Your task to perform on an android device: Open calendar and show me the third week of next month Image 0: 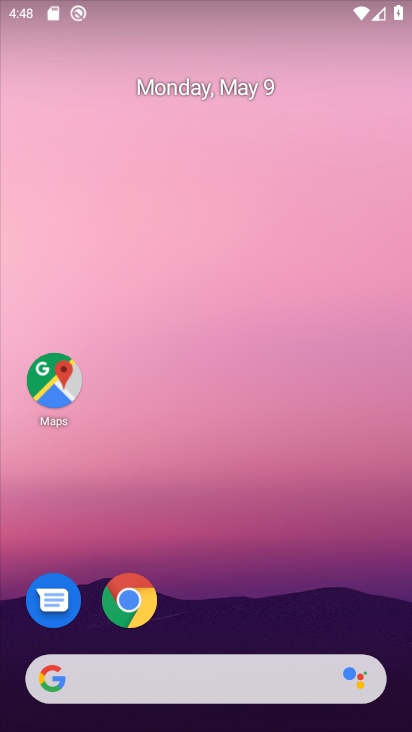
Step 0: drag from (242, 673) to (217, 80)
Your task to perform on an android device: Open calendar and show me the third week of next month Image 1: 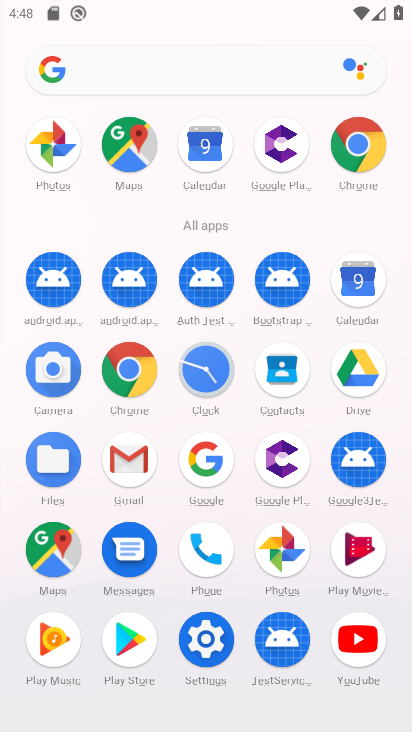
Step 1: click (366, 268)
Your task to perform on an android device: Open calendar and show me the third week of next month Image 2: 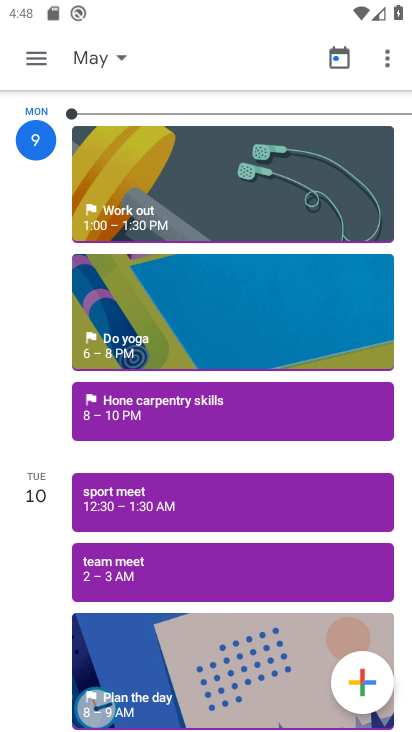
Step 2: click (130, 56)
Your task to perform on an android device: Open calendar and show me the third week of next month Image 3: 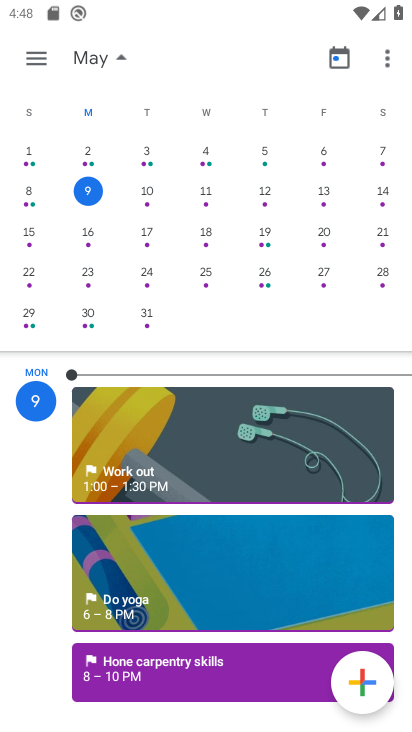
Step 3: drag from (365, 265) to (28, 233)
Your task to perform on an android device: Open calendar and show me the third week of next month Image 4: 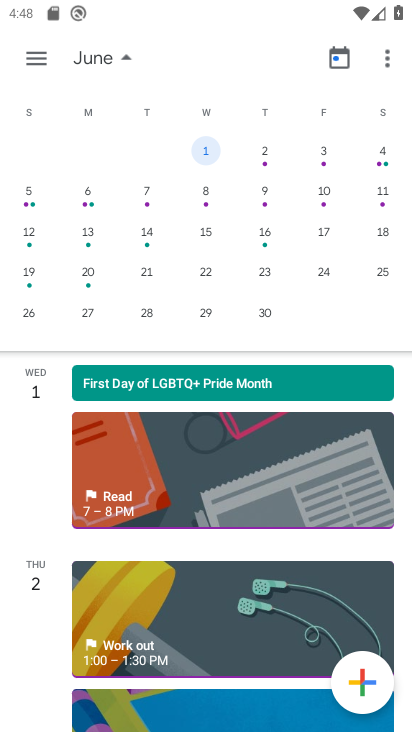
Step 4: click (259, 229)
Your task to perform on an android device: Open calendar and show me the third week of next month Image 5: 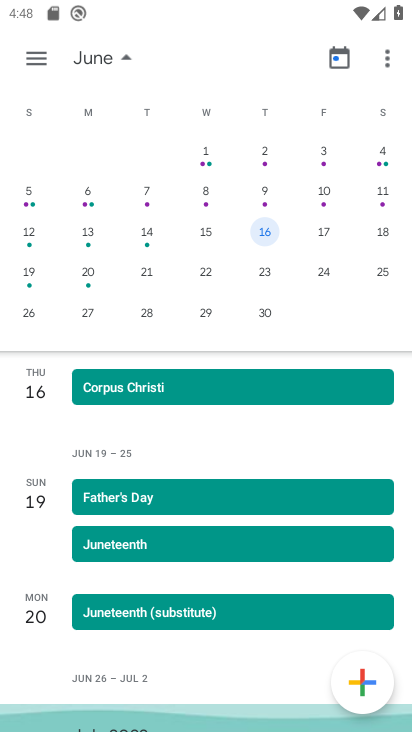
Step 5: click (37, 60)
Your task to perform on an android device: Open calendar and show me the third week of next month Image 6: 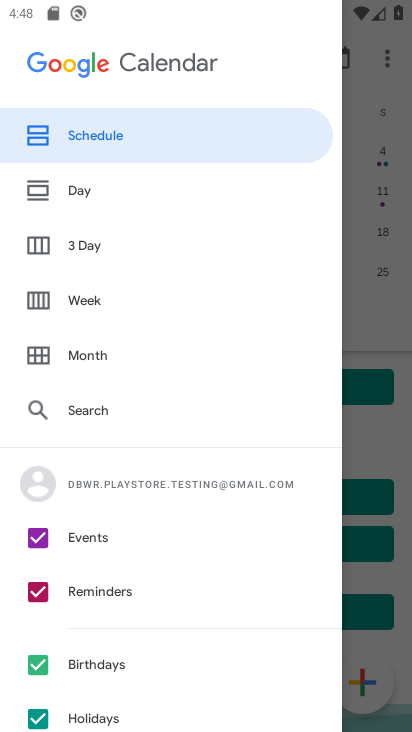
Step 6: click (83, 295)
Your task to perform on an android device: Open calendar and show me the third week of next month Image 7: 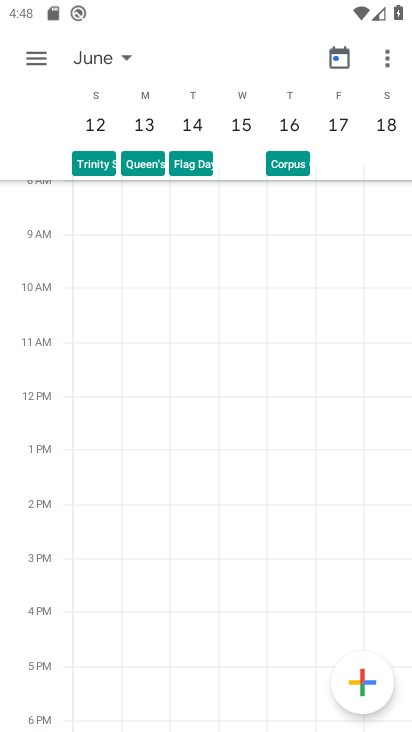
Step 7: task complete